Your task to perform on an android device: set the timer Image 0: 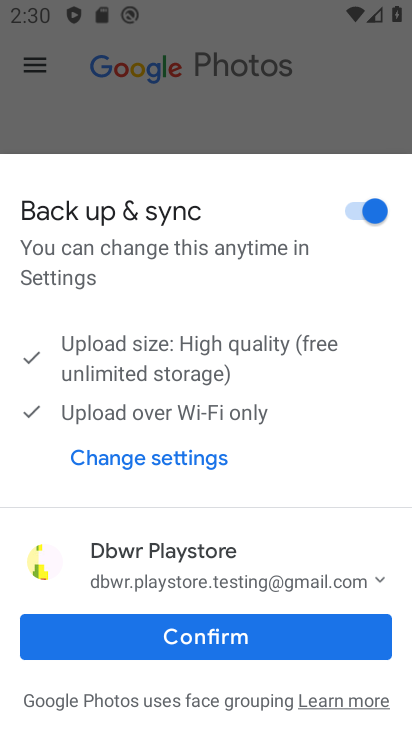
Step 0: press home button
Your task to perform on an android device: set the timer Image 1: 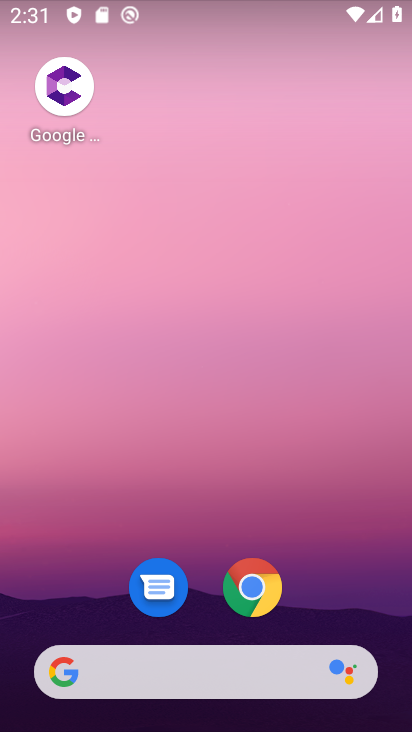
Step 1: drag from (206, 545) to (193, 120)
Your task to perform on an android device: set the timer Image 2: 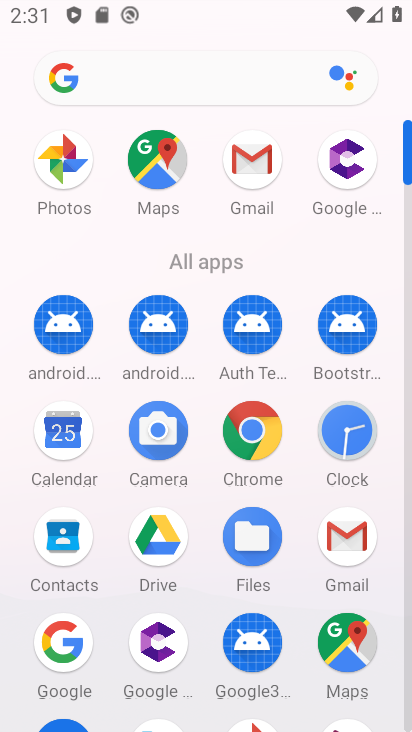
Step 2: click (348, 449)
Your task to perform on an android device: set the timer Image 3: 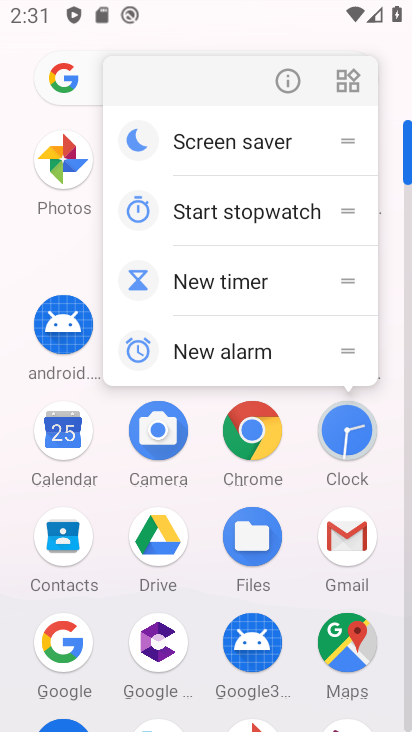
Step 3: click (211, 280)
Your task to perform on an android device: set the timer Image 4: 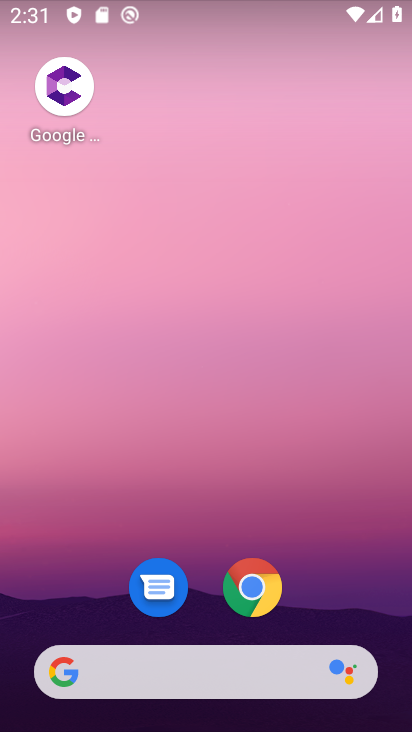
Step 4: drag from (228, 497) to (231, 149)
Your task to perform on an android device: set the timer Image 5: 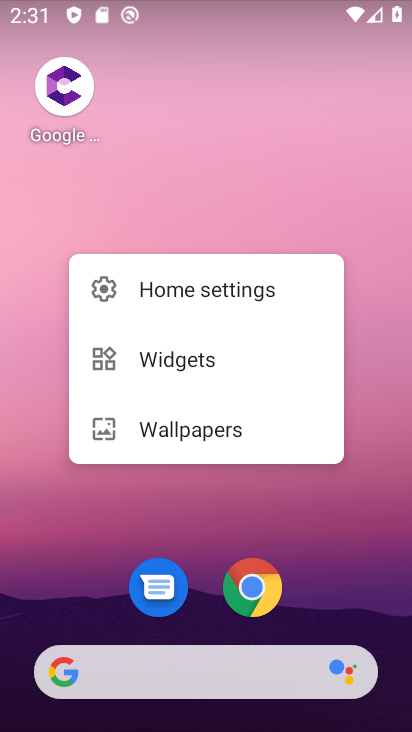
Step 5: click (213, 495)
Your task to perform on an android device: set the timer Image 6: 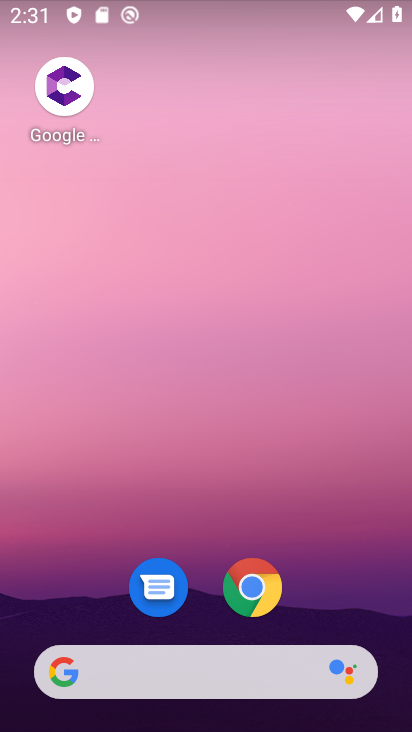
Step 6: drag from (210, 525) to (220, 75)
Your task to perform on an android device: set the timer Image 7: 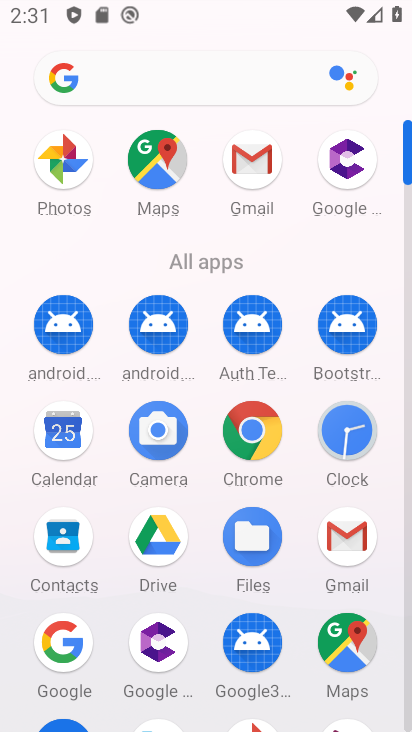
Step 7: click (351, 423)
Your task to perform on an android device: set the timer Image 8: 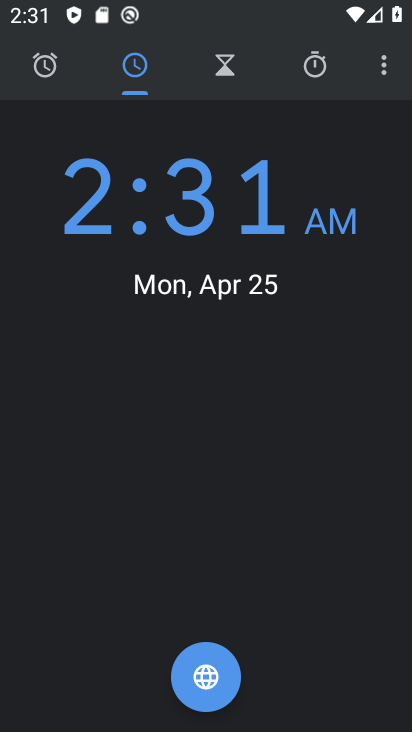
Step 8: click (304, 73)
Your task to perform on an android device: set the timer Image 9: 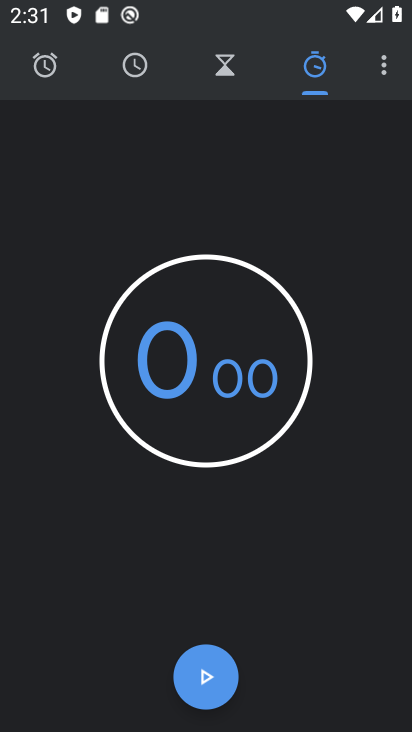
Step 9: click (237, 71)
Your task to perform on an android device: set the timer Image 10: 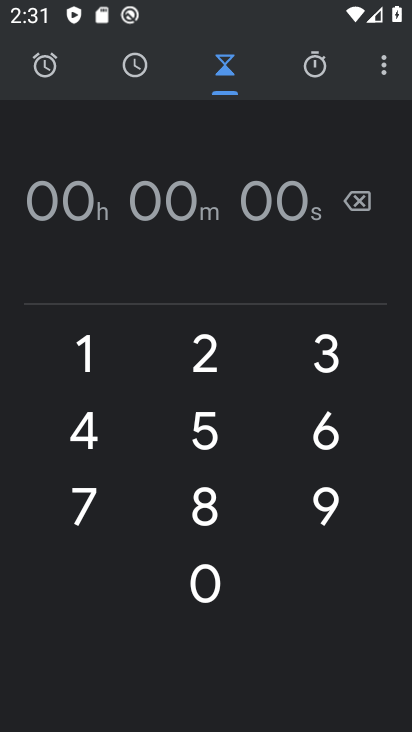
Step 10: click (215, 494)
Your task to perform on an android device: set the timer Image 11: 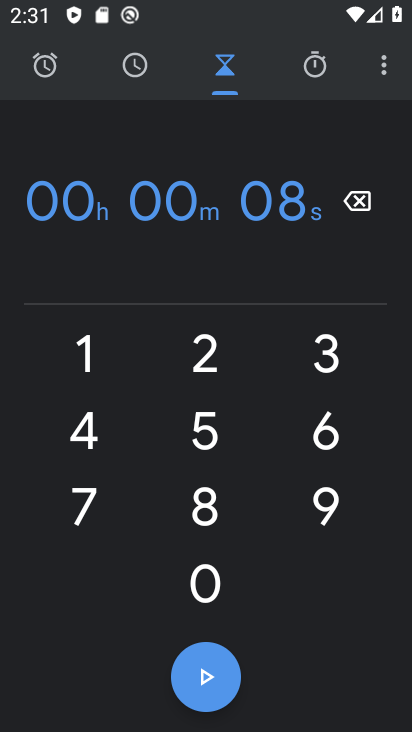
Step 11: click (208, 491)
Your task to perform on an android device: set the timer Image 12: 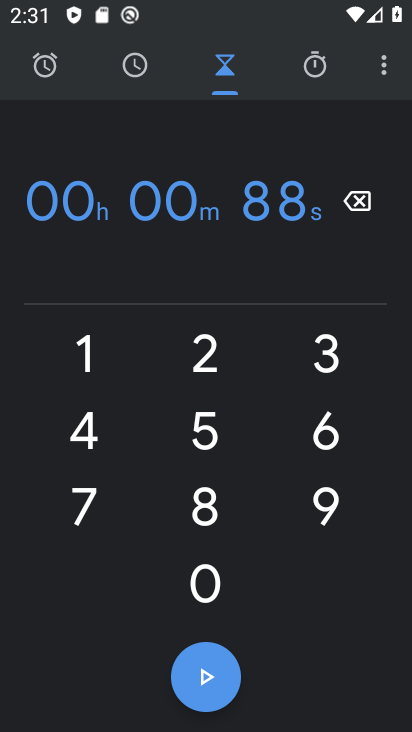
Step 12: click (208, 492)
Your task to perform on an android device: set the timer Image 13: 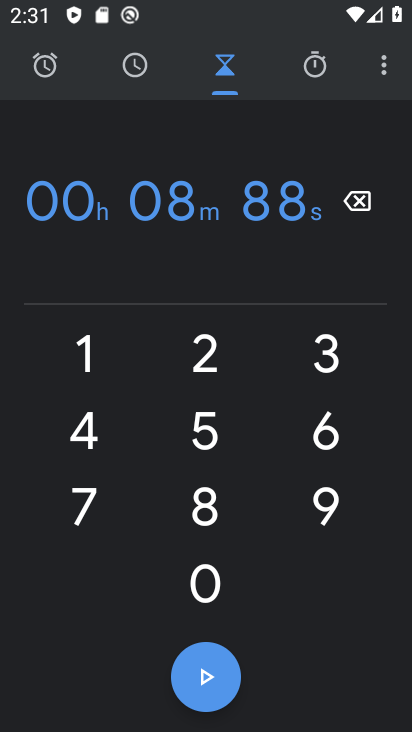
Step 13: click (216, 660)
Your task to perform on an android device: set the timer Image 14: 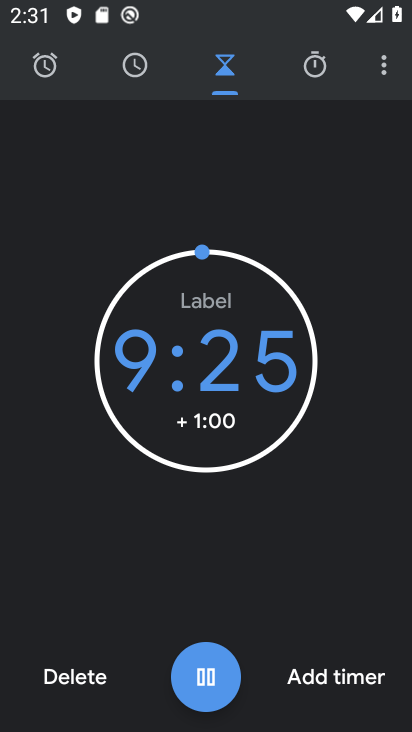
Step 14: task complete